Your task to perform on an android device: uninstall "Skype" Image 0: 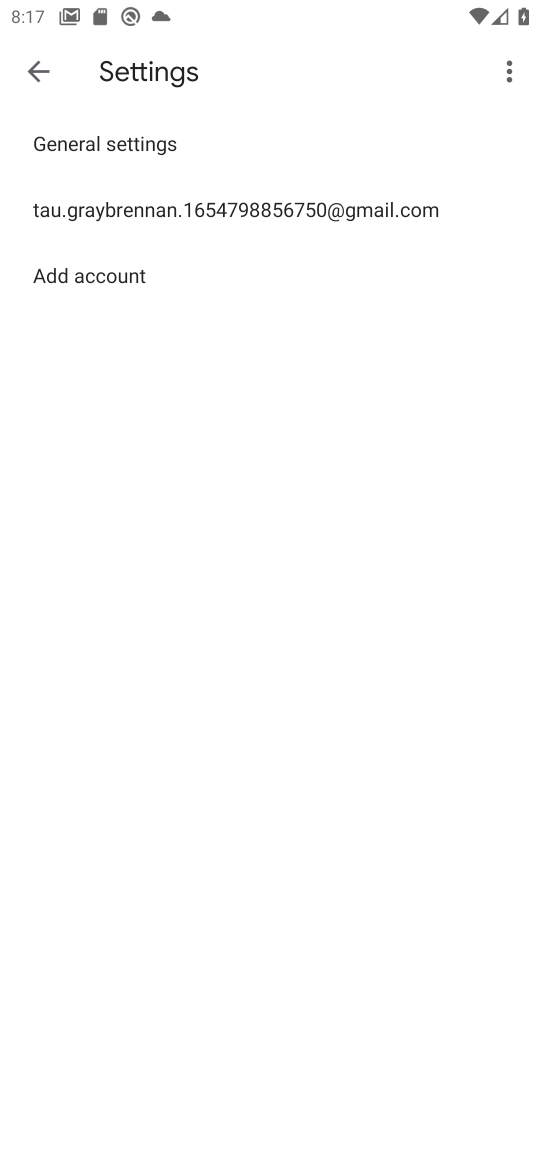
Step 0: press home button
Your task to perform on an android device: uninstall "Skype" Image 1: 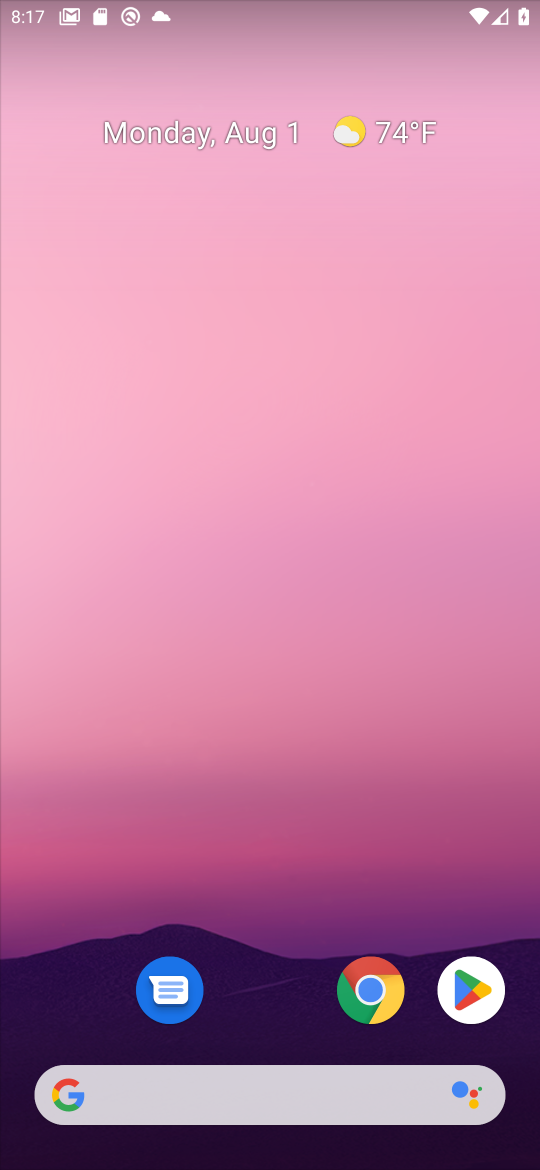
Step 1: click (452, 1009)
Your task to perform on an android device: uninstall "Skype" Image 2: 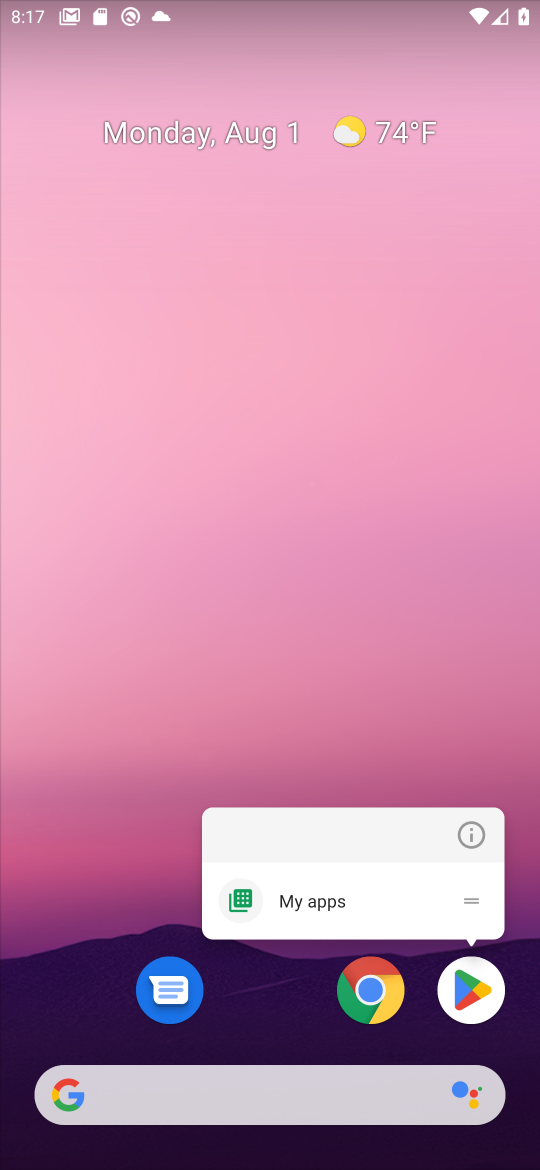
Step 2: click (475, 994)
Your task to perform on an android device: uninstall "Skype" Image 3: 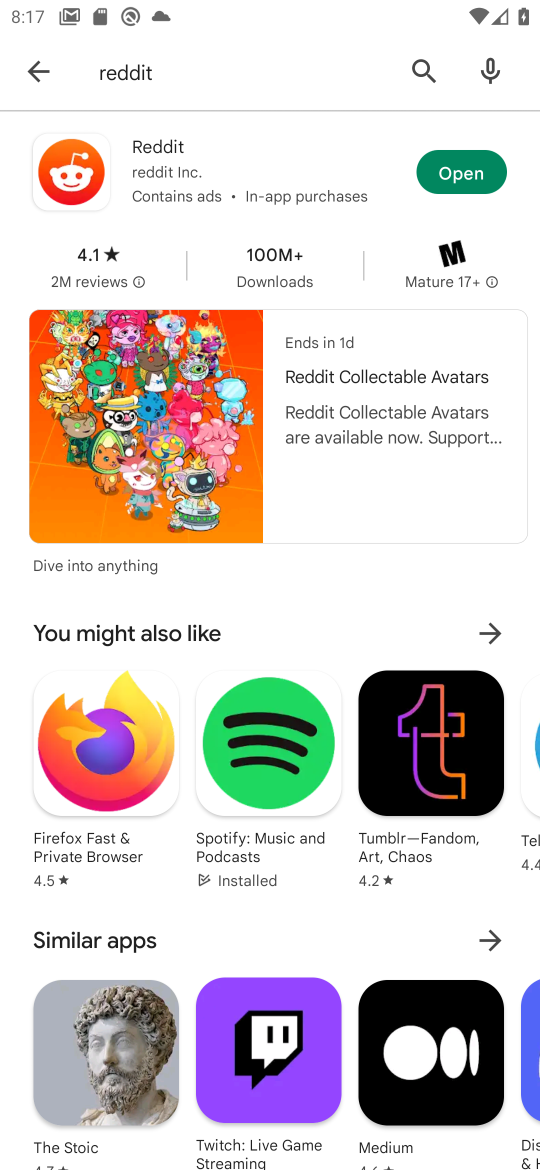
Step 3: click (419, 83)
Your task to perform on an android device: uninstall "Skype" Image 4: 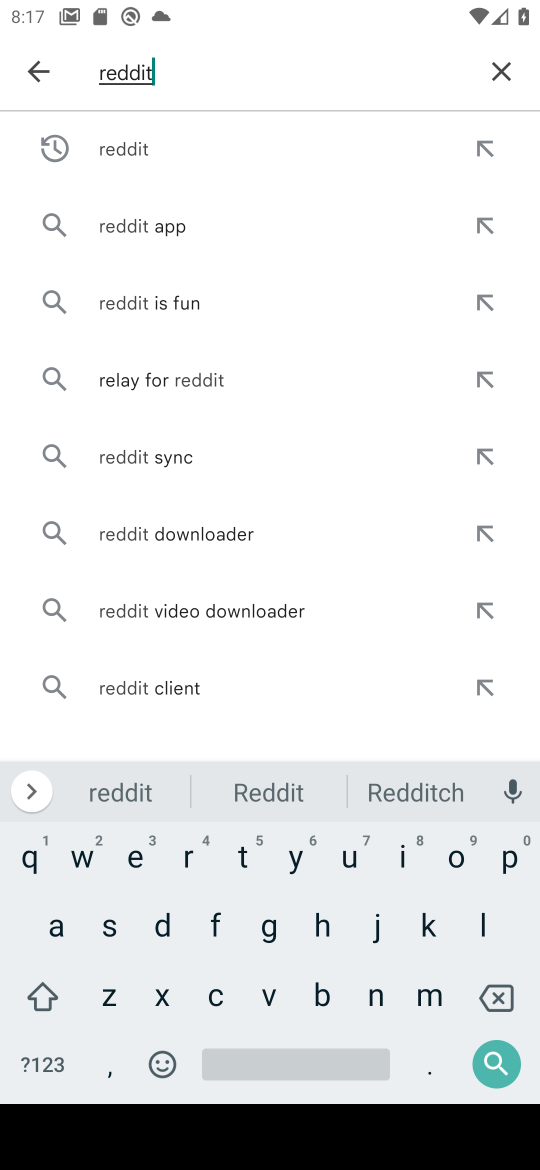
Step 4: click (497, 75)
Your task to perform on an android device: uninstall "Skype" Image 5: 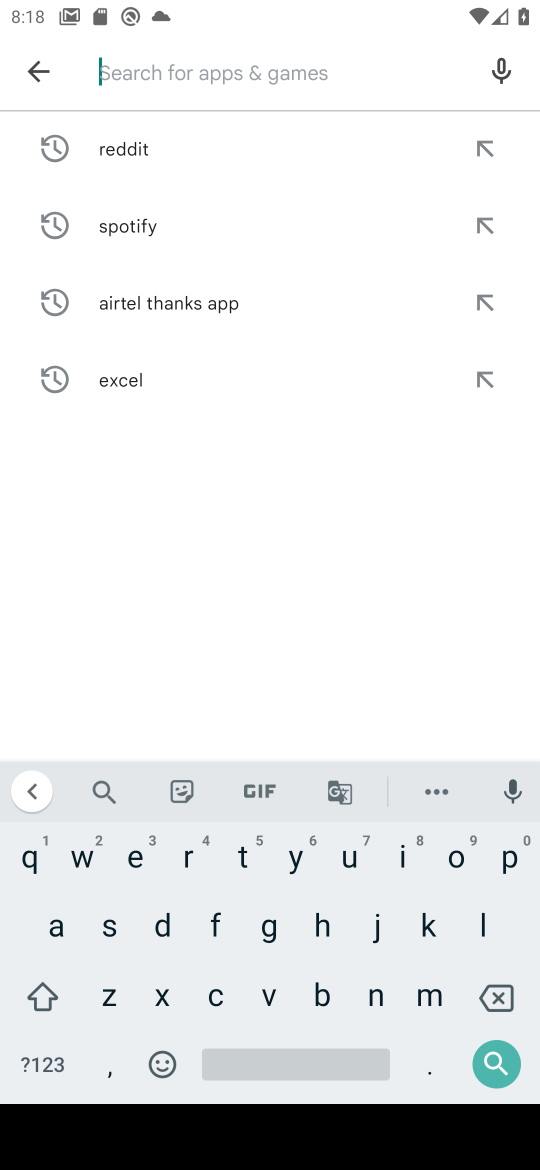
Step 5: click (106, 921)
Your task to perform on an android device: uninstall "Skype" Image 6: 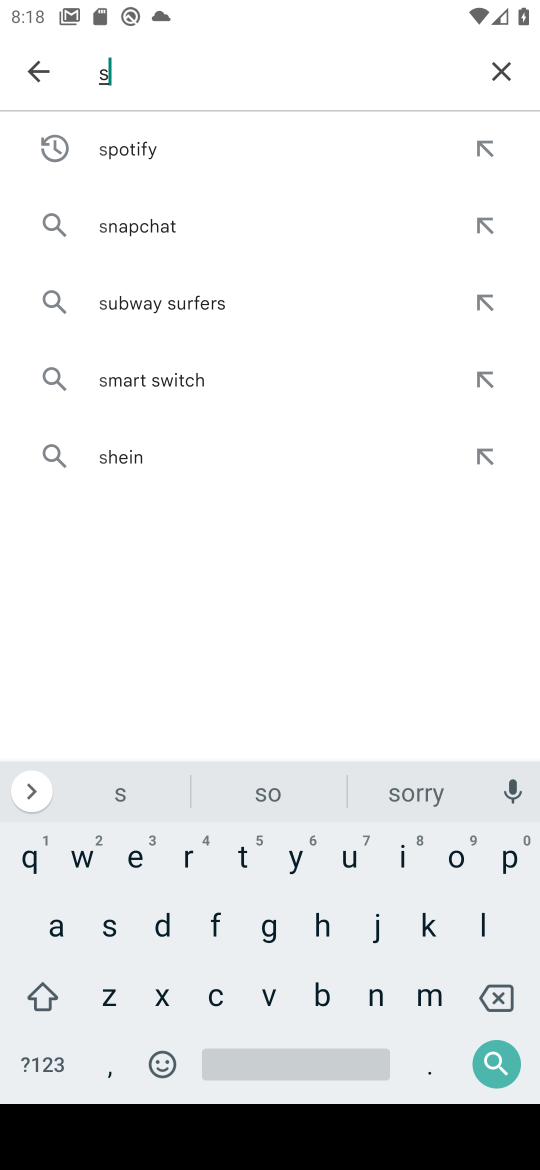
Step 6: click (420, 922)
Your task to perform on an android device: uninstall "Skype" Image 7: 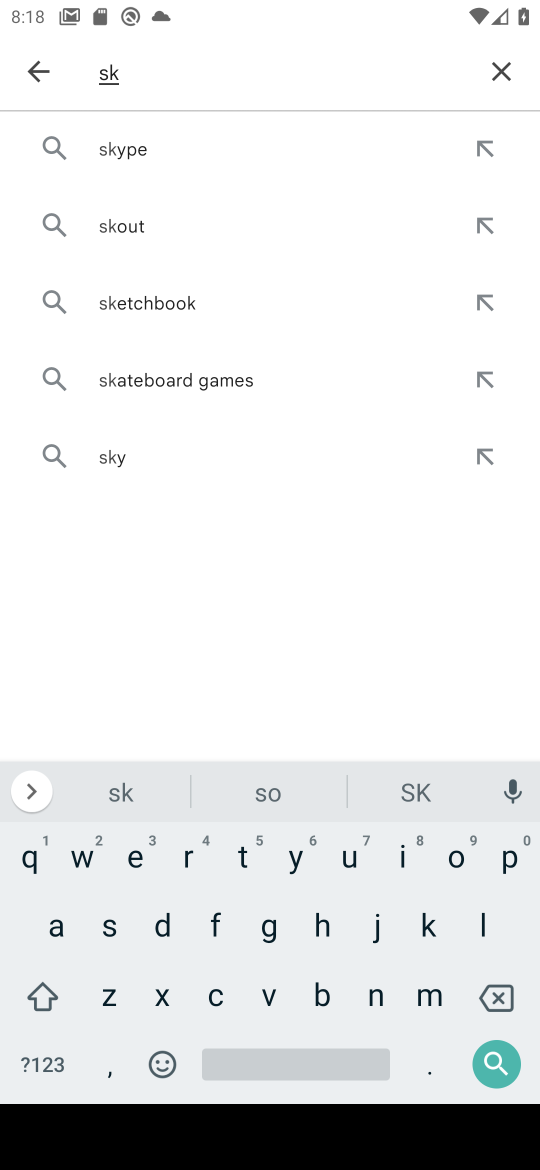
Step 7: click (171, 149)
Your task to perform on an android device: uninstall "Skype" Image 8: 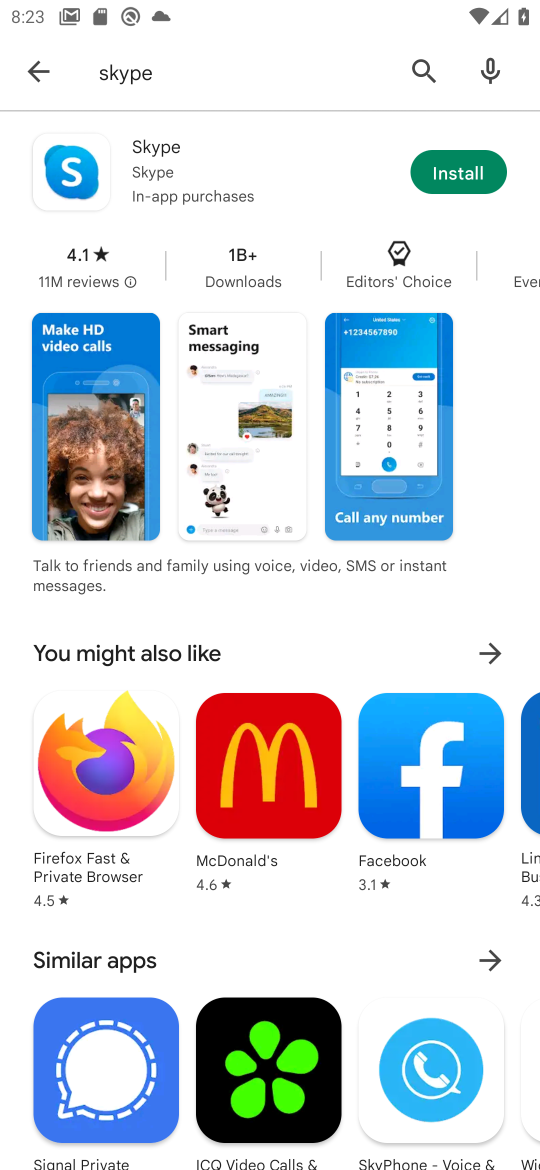
Step 8: task complete